Your task to perform on an android device: add a contact Image 0: 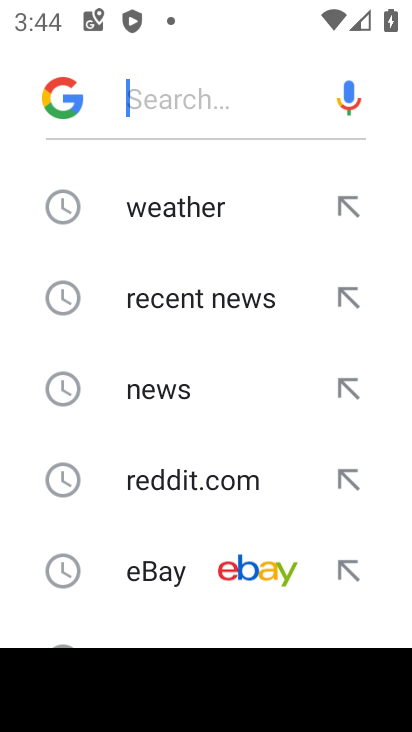
Step 0: press home button
Your task to perform on an android device: add a contact Image 1: 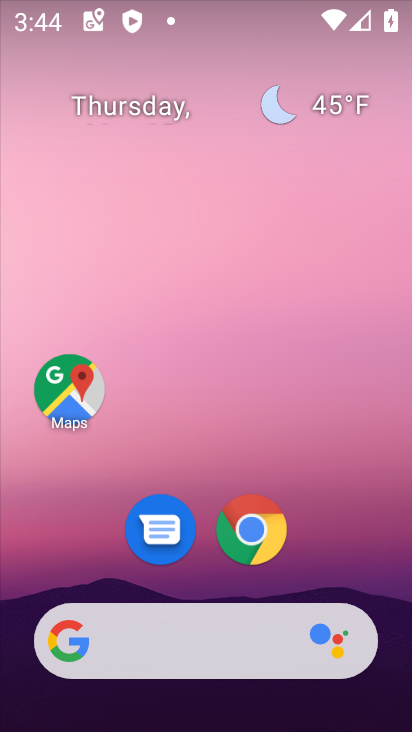
Step 1: drag from (352, 505) to (377, 55)
Your task to perform on an android device: add a contact Image 2: 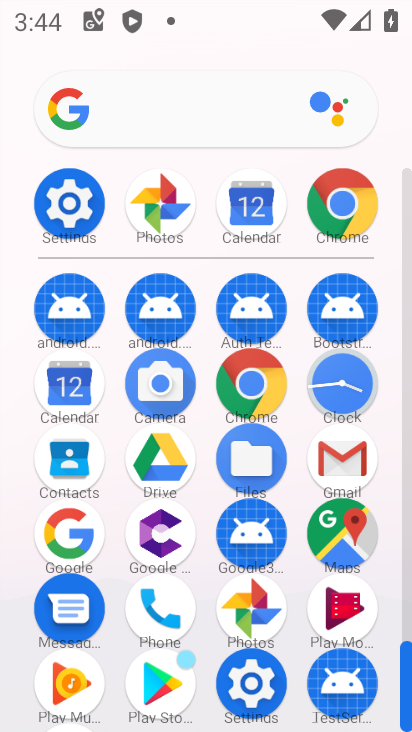
Step 2: click (239, 216)
Your task to perform on an android device: add a contact Image 3: 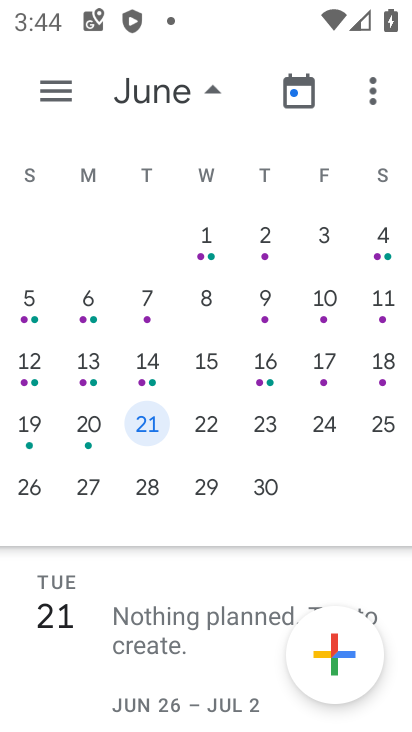
Step 3: press home button
Your task to perform on an android device: add a contact Image 4: 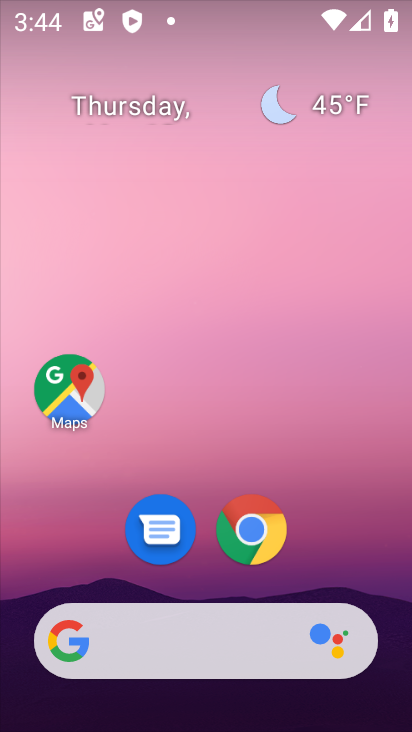
Step 4: drag from (352, 501) to (323, 1)
Your task to perform on an android device: add a contact Image 5: 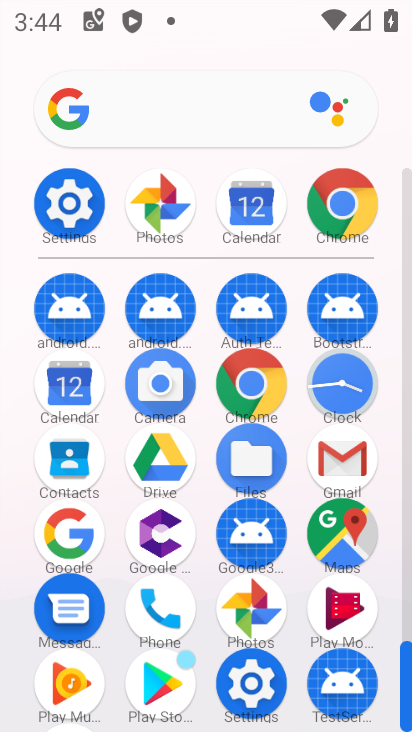
Step 5: click (156, 608)
Your task to perform on an android device: add a contact Image 6: 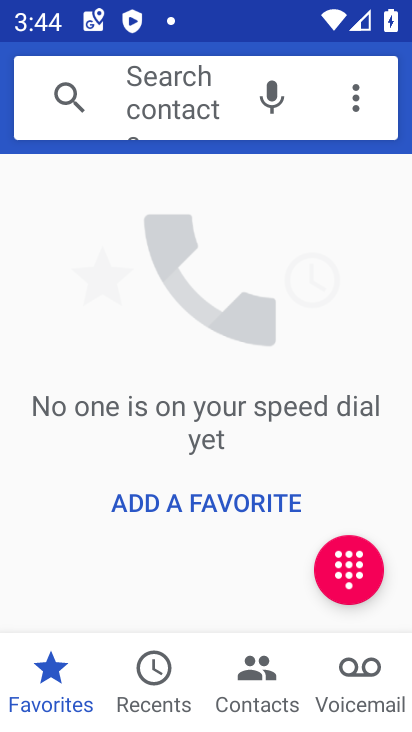
Step 6: click (236, 676)
Your task to perform on an android device: add a contact Image 7: 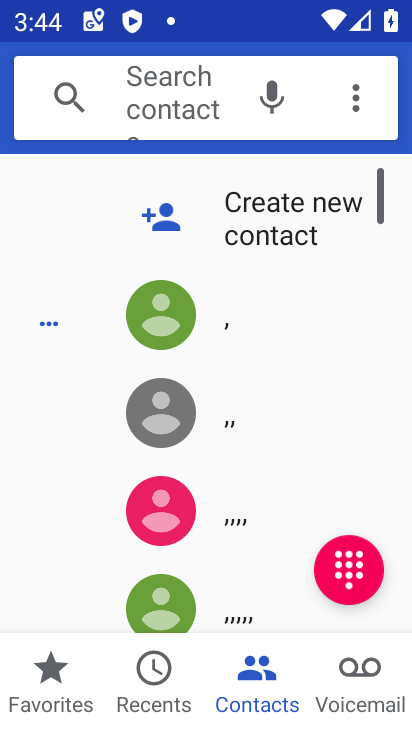
Step 7: click (212, 236)
Your task to perform on an android device: add a contact Image 8: 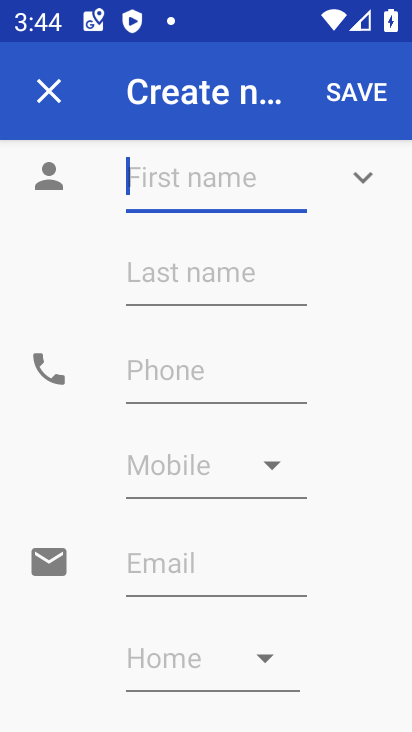
Step 8: type "yrtr"
Your task to perform on an android device: add a contact Image 9: 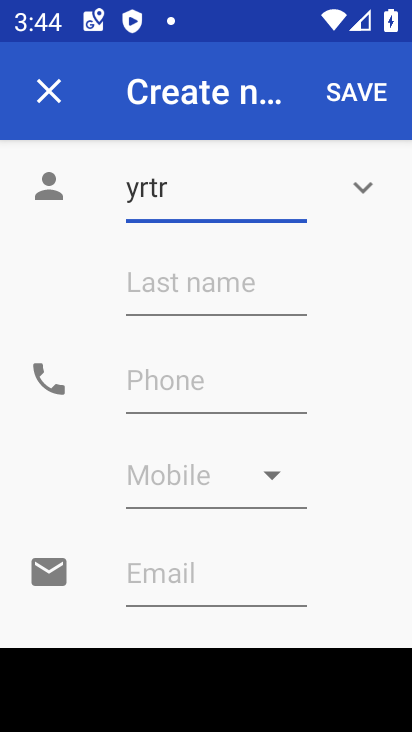
Step 9: click (215, 374)
Your task to perform on an android device: add a contact Image 10: 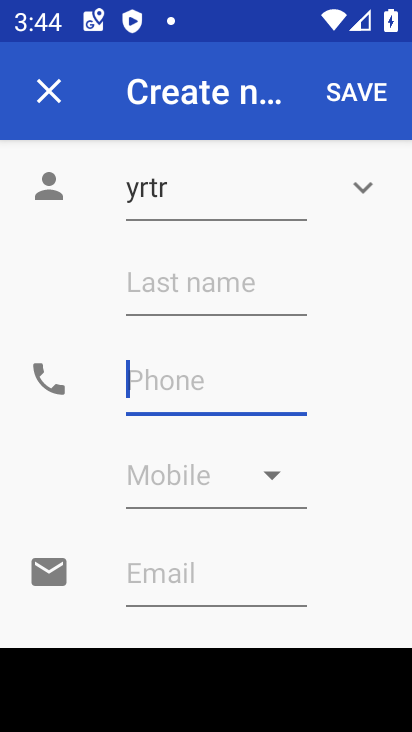
Step 10: type "647474747"
Your task to perform on an android device: add a contact Image 11: 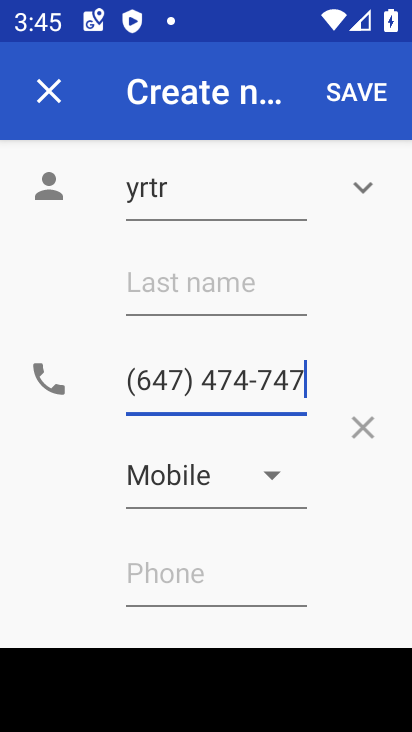
Step 11: click (365, 89)
Your task to perform on an android device: add a contact Image 12: 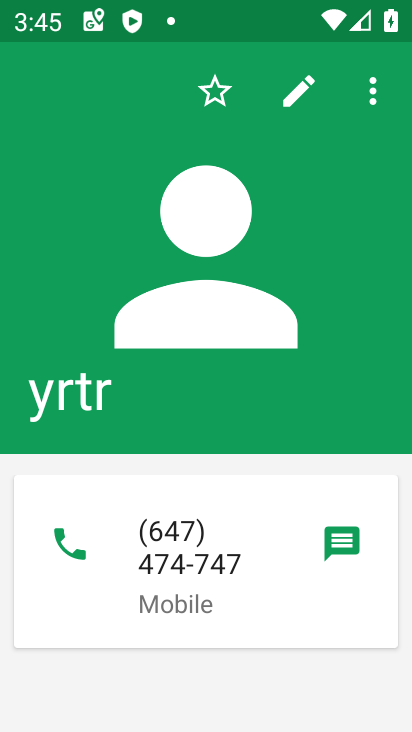
Step 12: task complete